Your task to perform on an android device: star an email in the gmail app Image 0: 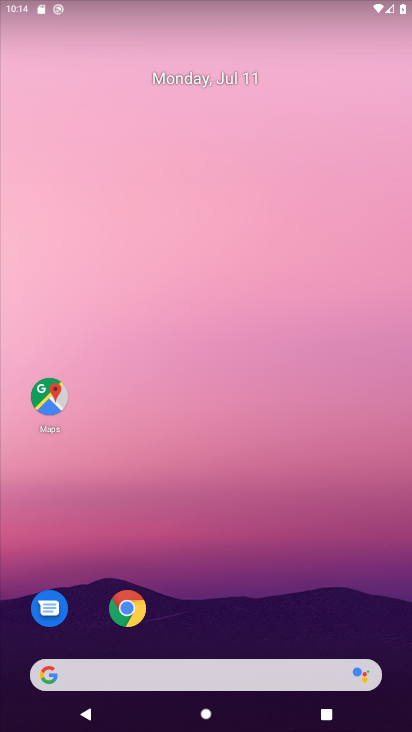
Step 0: drag from (175, 655) to (259, 134)
Your task to perform on an android device: star an email in the gmail app Image 1: 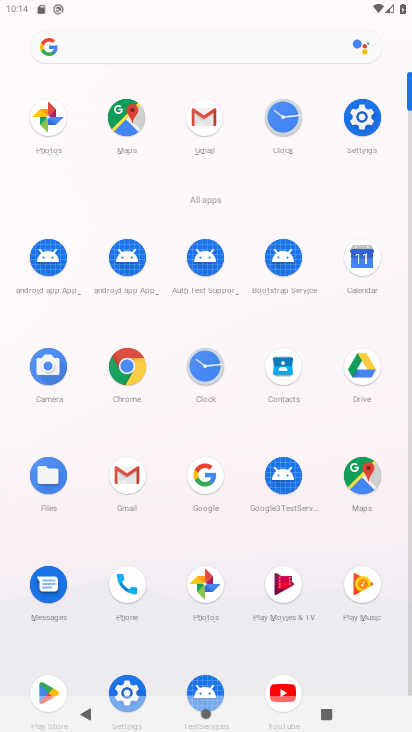
Step 1: click (130, 478)
Your task to perform on an android device: star an email in the gmail app Image 2: 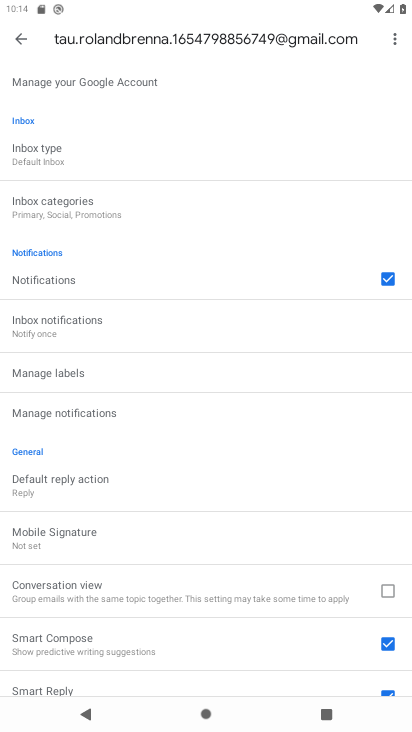
Step 2: press back button
Your task to perform on an android device: star an email in the gmail app Image 3: 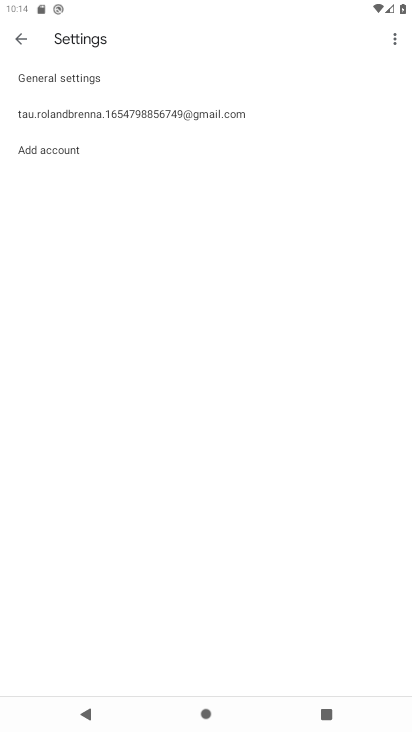
Step 3: press back button
Your task to perform on an android device: star an email in the gmail app Image 4: 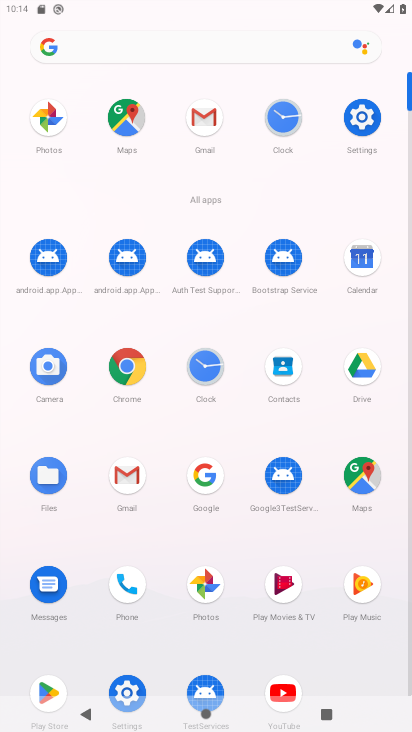
Step 4: click (97, 484)
Your task to perform on an android device: star an email in the gmail app Image 5: 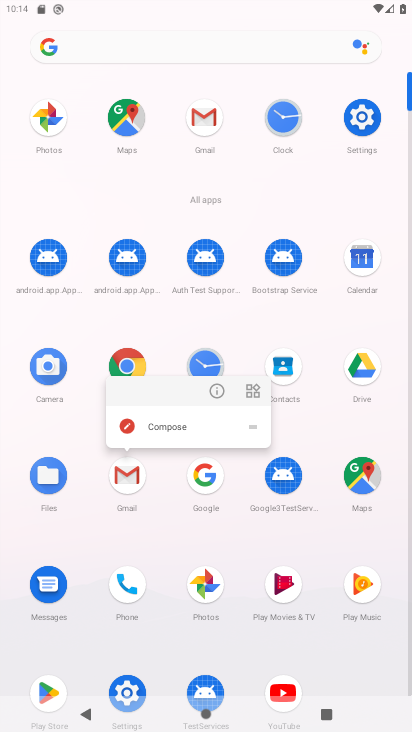
Step 5: click (117, 488)
Your task to perform on an android device: star an email in the gmail app Image 6: 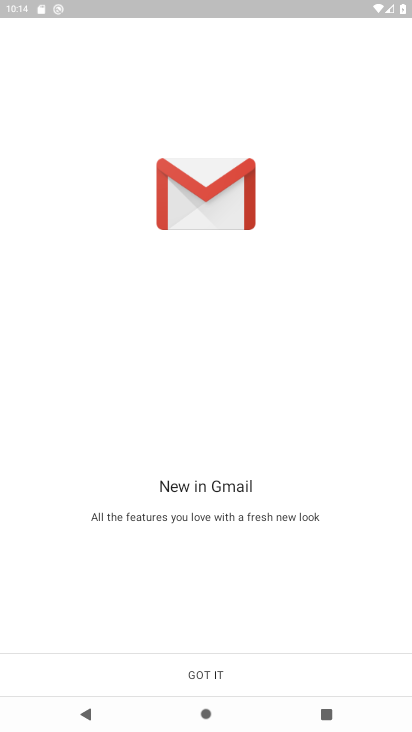
Step 6: click (244, 681)
Your task to perform on an android device: star an email in the gmail app Image 7: 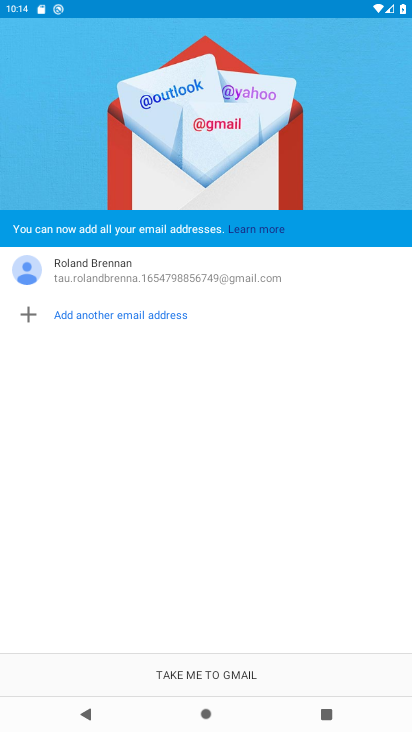
Step 7: click (263, 689)
Your task to perform on an android device: star an email in the gmail app Image 8: 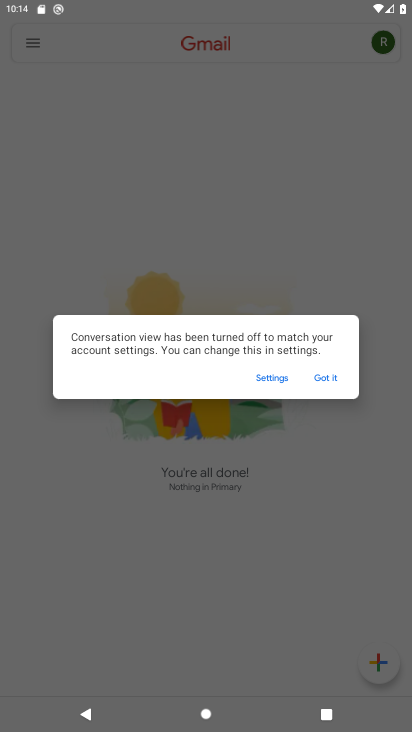
Step 8: click (321, 387)
Your task to perform on an android device: star an email in the gmail app Image 9: 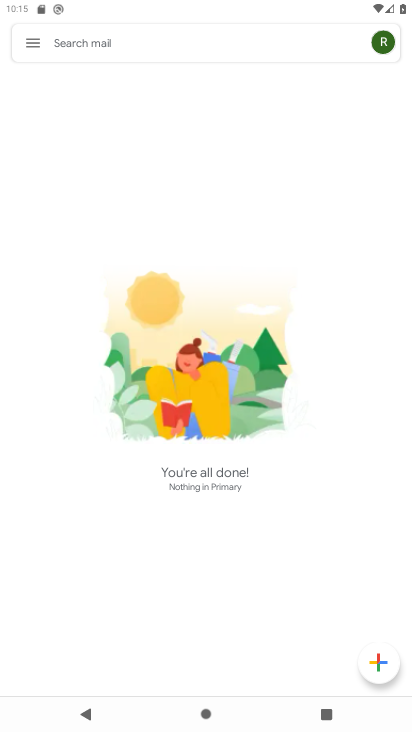
Step 9: task complete